Your task to perform on an android device: Open display settings Image 0: 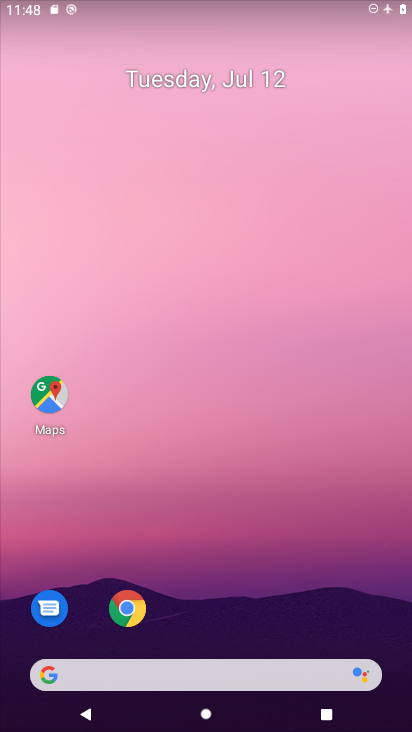
Step 0: drag from (254, 725) to (262, 80)
Your task to perform on an android device: Open display settings Image 1: 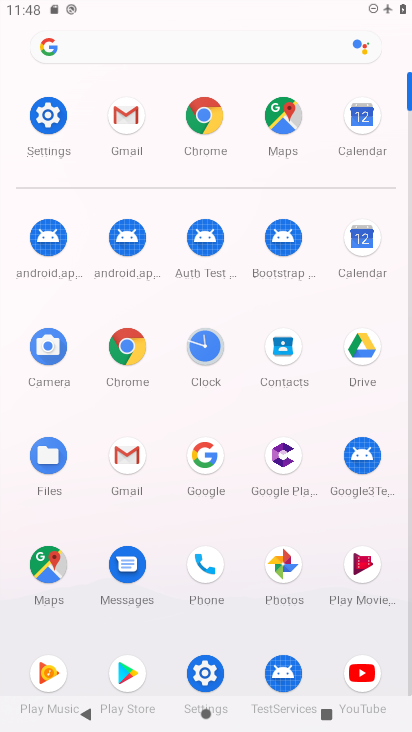
Step 1: click (43, 113)
Your task to perform on an android device: Open display settings Image 2: 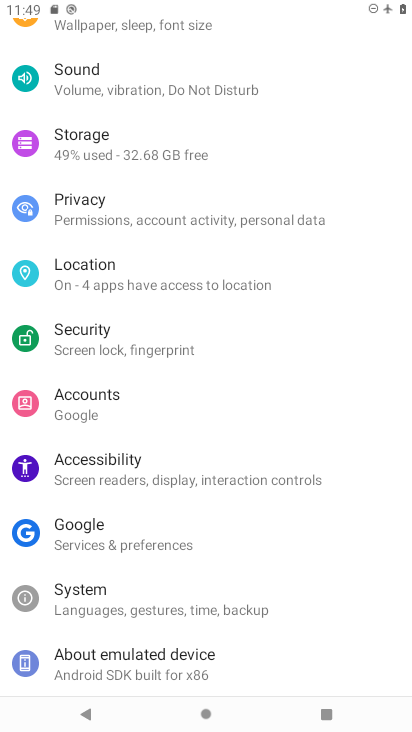
Step 2: drag from (136, 130) to (136, 453)
Your task to perform on an android device: Open display settings Image 3: 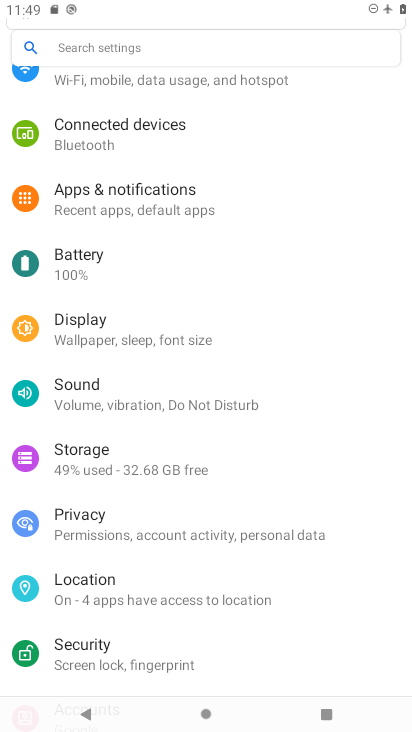
Step 3: click (88, 326)
Your task to perform on an android device: Open display settings Image 4: 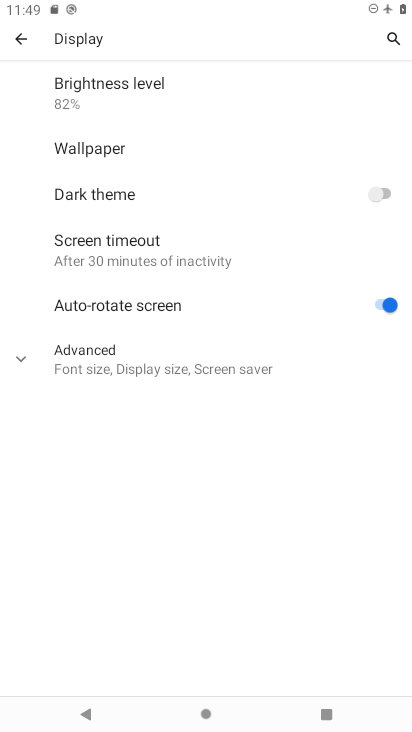
Step 4: task complete